Your task to perform on an android device: empty trash in the gmail app Image 0: 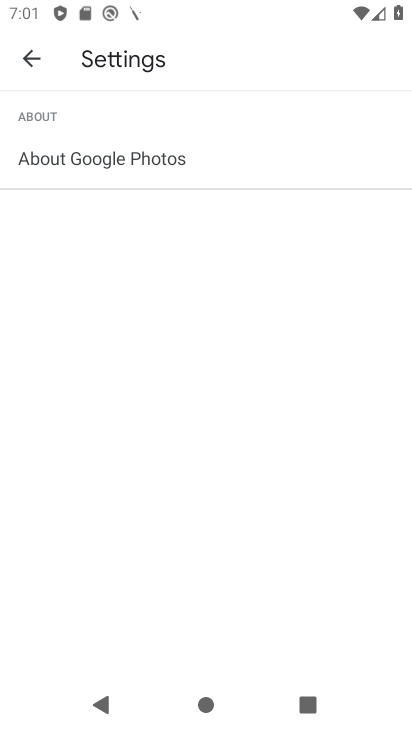
Step 0: press home button
Your task to perform on an android device: empty trash in the gmail app Image 1: 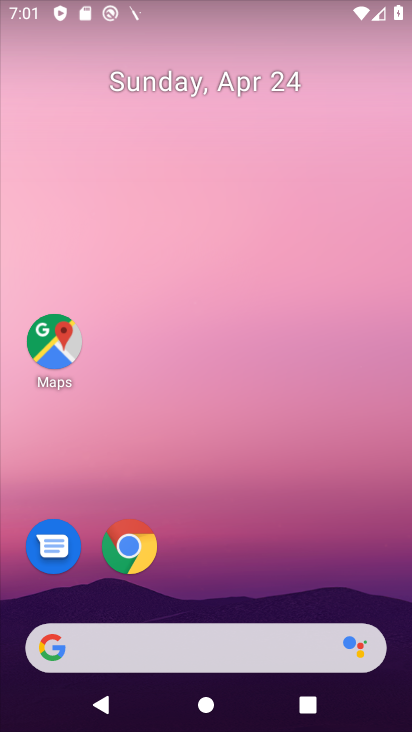
Step 1: drag from (267, 554) to (335, 0)
Your task to perform on an android device: empty trash in the gmail app Image 2: 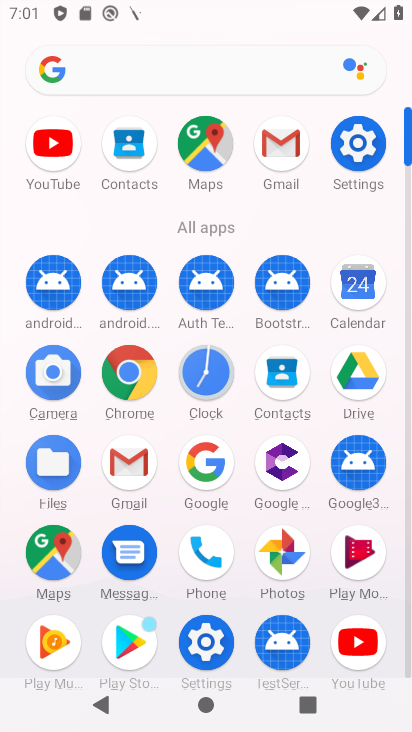
Step 2: click (275, 149)
Your task to perform on an android device: empty trash in the gmail app Image 3: 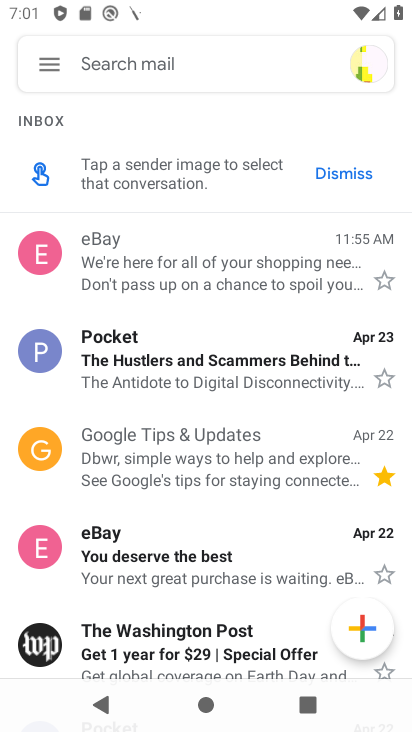
Step 3: click (38, 54)
Your task to perform on an android device: empty trash in the gmail app Image 4: 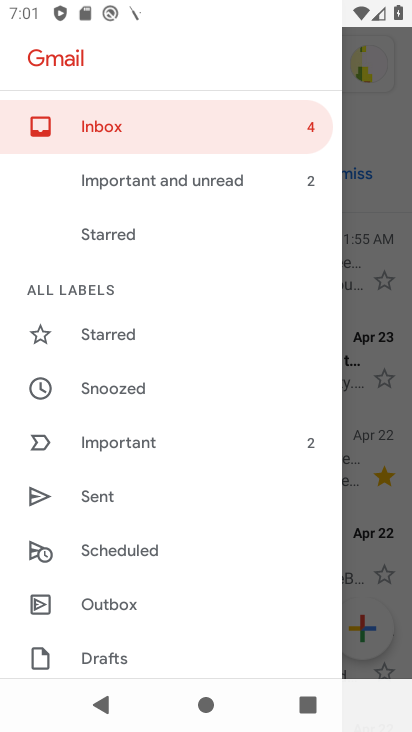
Step 4: drag from (164, 630) to (225, 132)
Your task to perform on an android device: empty trash in the gmail app Image 5: 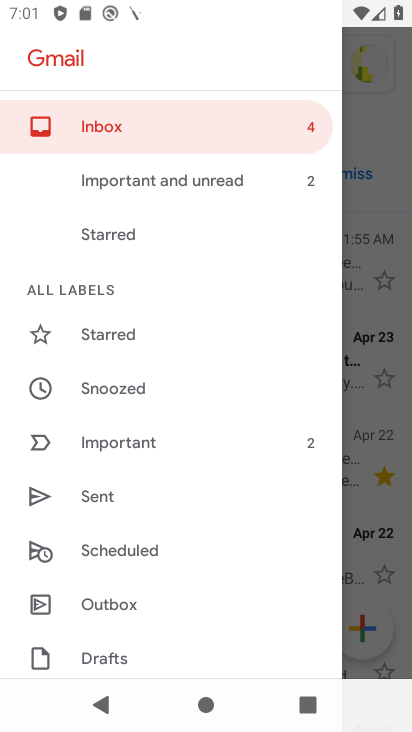
Step 5: drag from (200, 560) to (152, 174)
Your task to perform on an android device: empty trash in the gmail app Image 6: 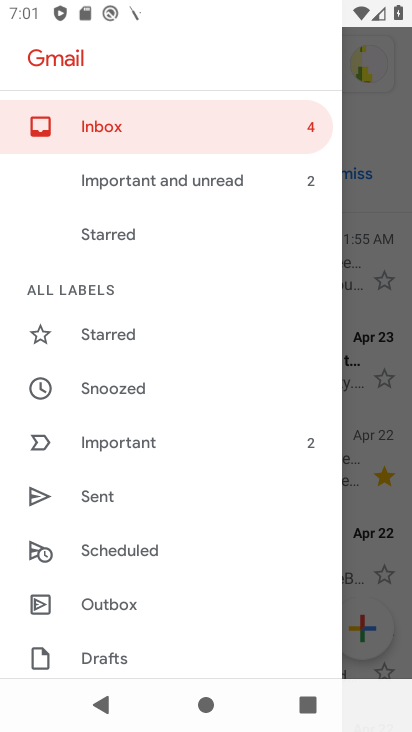
Step 6: drag from (213, 473) to (228, 49)
Your task to perform on an android device: empty trash in the gmail app Image 7: 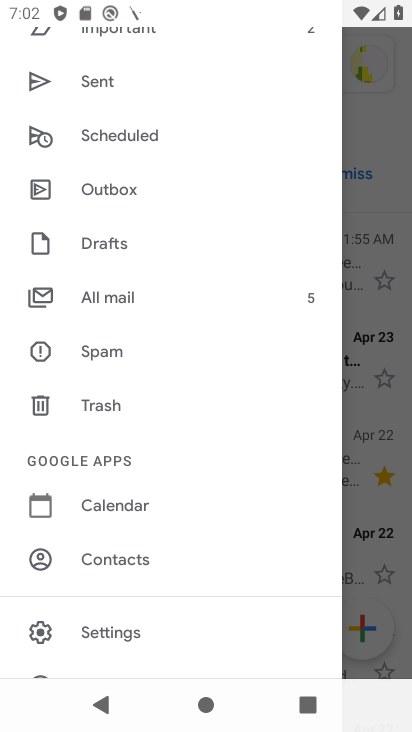
Step 7: click (107, 396)
Your task to perform on an android device: empty trash in the gmail app Image 8: 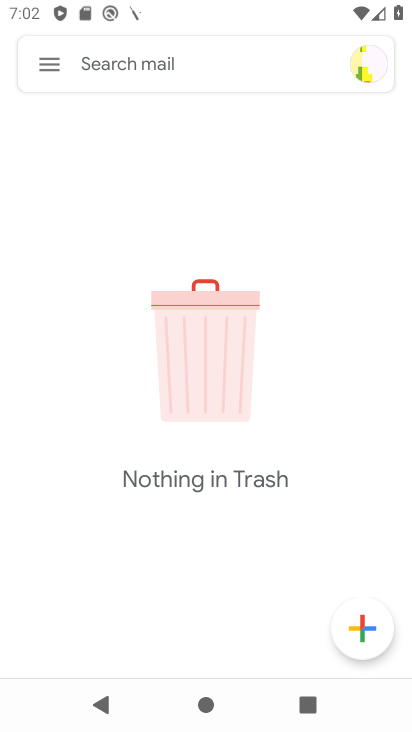
Step 8: task complete